Your task to perform on an android device: Go to location settings Image 0: 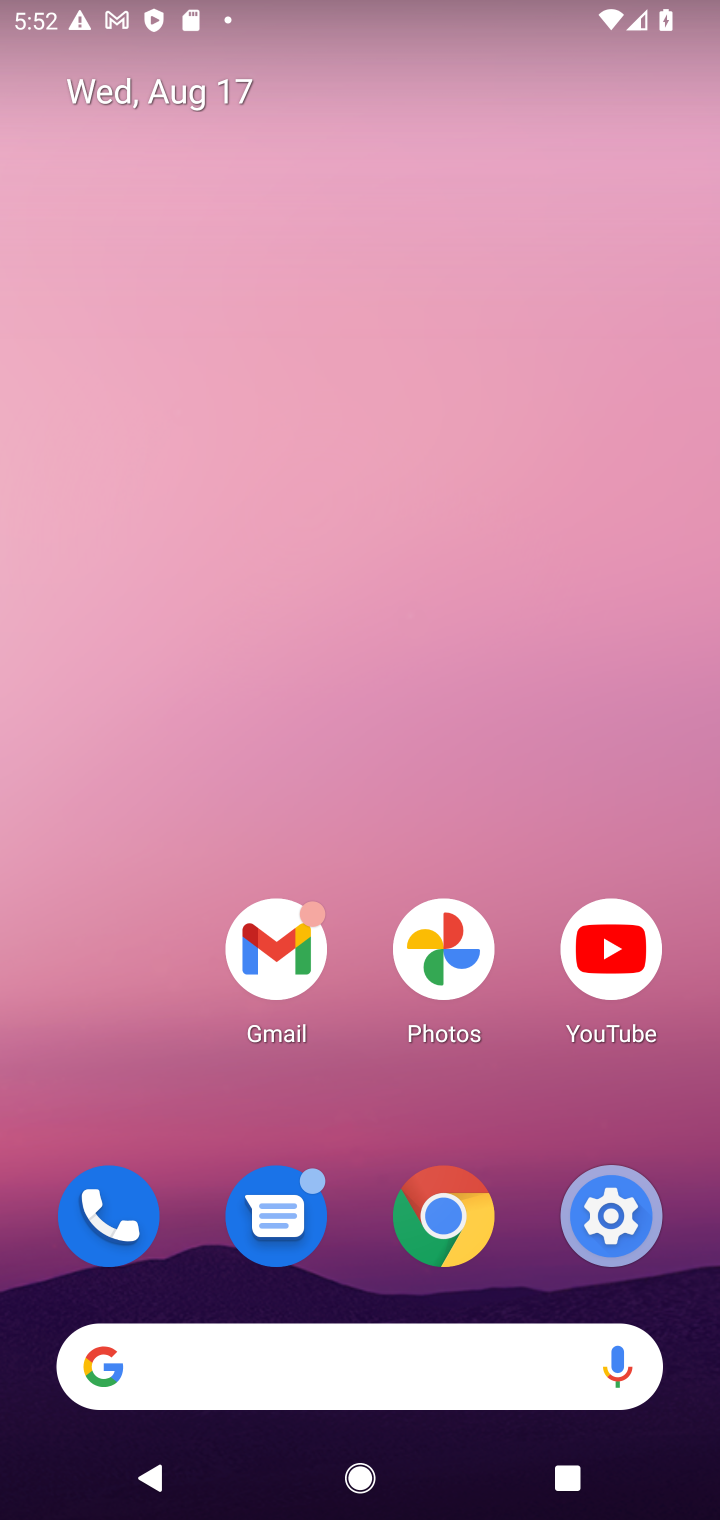
Step 0: drag from (549, 996) to (551, 270)
Your task to perform on an android device: Go to location settings Image 1: 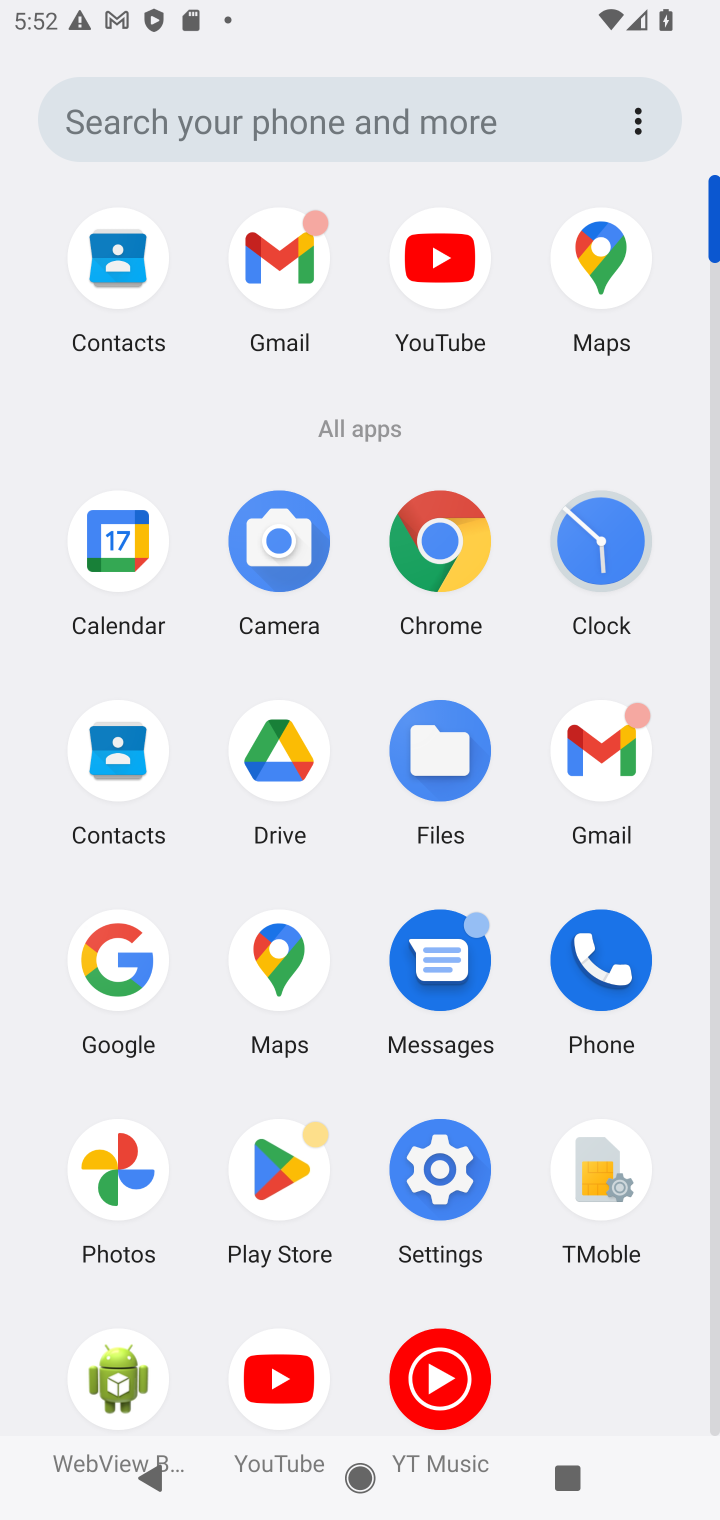
Step 1: click (451, 1144)
Your task to perform on an android device: Go to location settings Image 2: 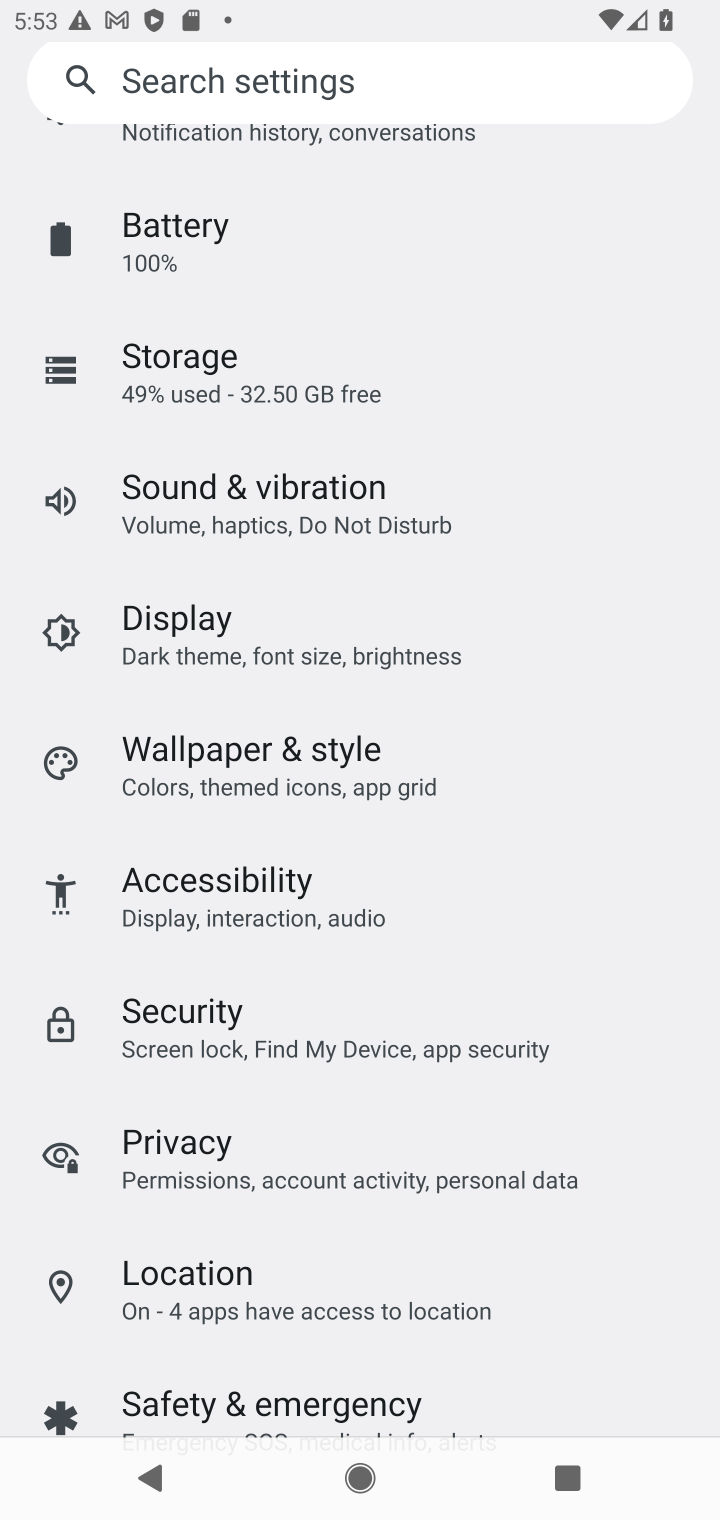
Step 2: click (249, 1285)
Your task to perform on an android device: Go to location settings Image 3: 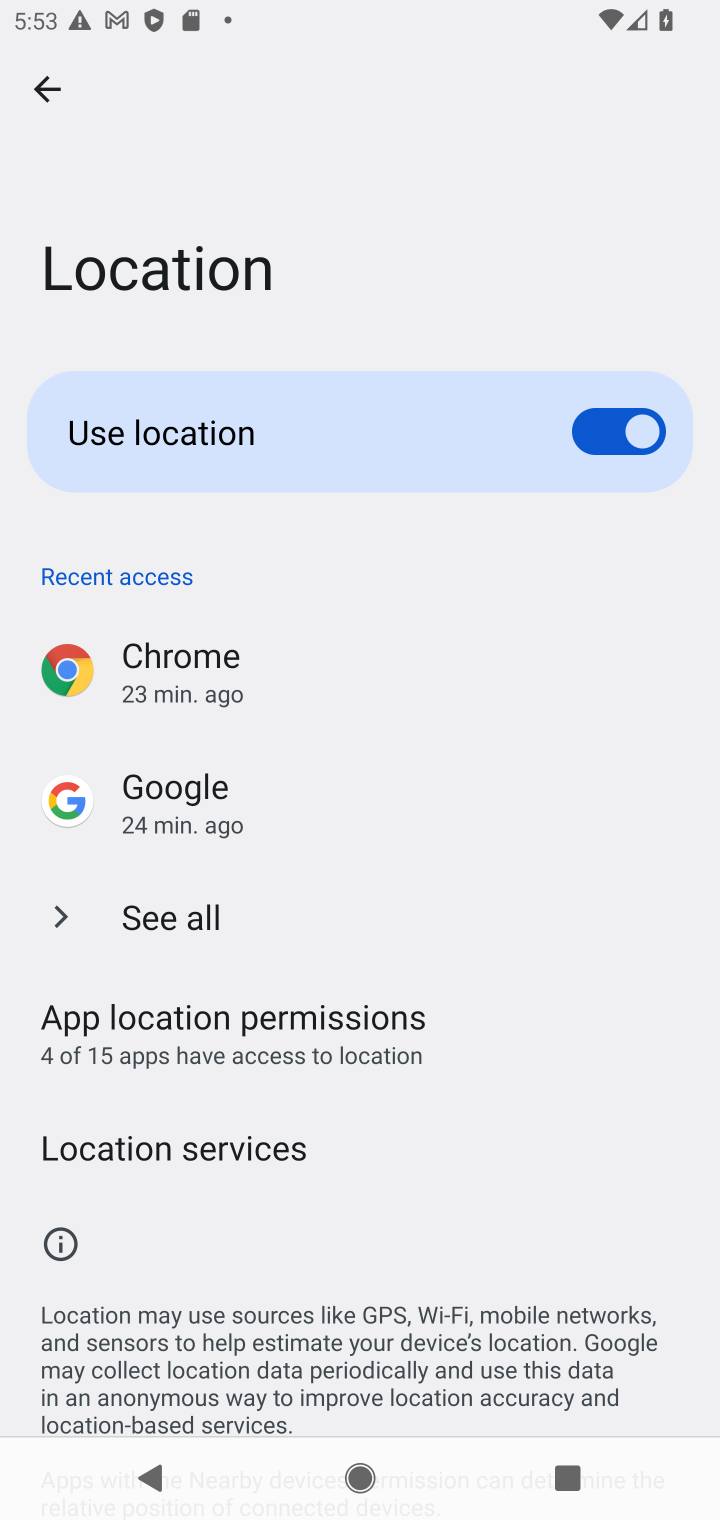
Step 3: task complete